Your task to perform on an android device: stop showing notifications on the lock screen Image 0: 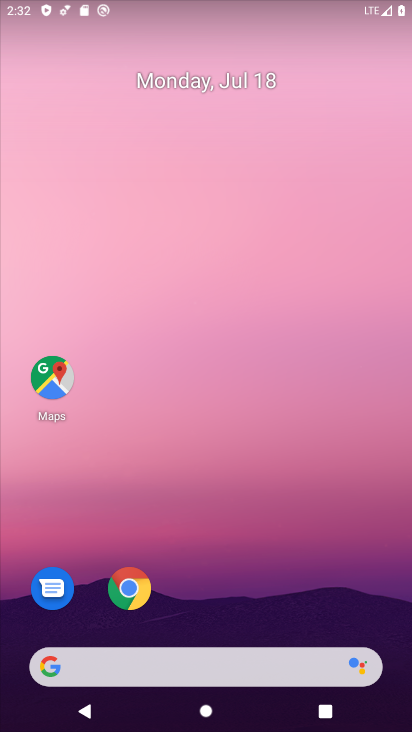
Step 0: drag from (220, 544) to (257, 23)
Your task to perform on an android device: stop showing notifications on the lock screen Image 1: 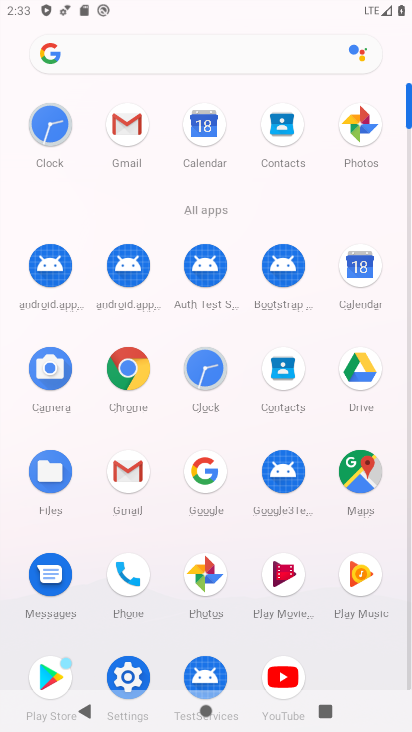
Step 1: click (130, 665)
Your task to perform on an android device: stop showing notifications on the lock screen Image 2: 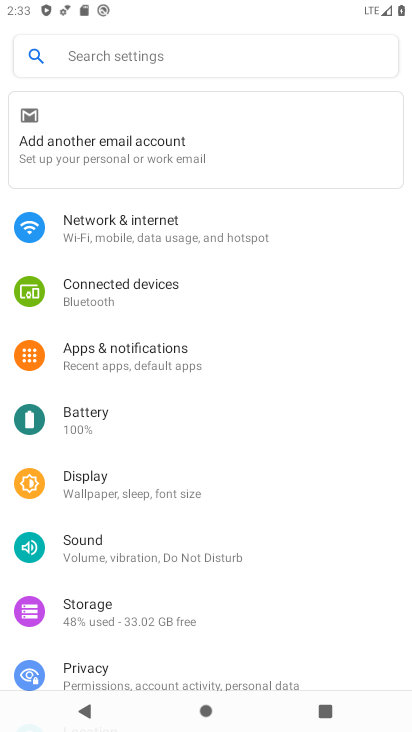
Step 2: click (140, 349)
Your task to perform on an android device: stop showing notifications on the lock screen Image 3: 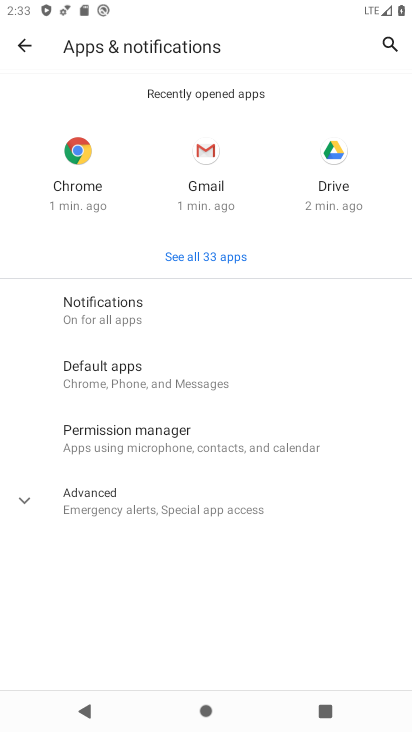
Step 3: click (119, 302)
Your task to perform on an android device: stop showing notifications on the lock screen Image 4: 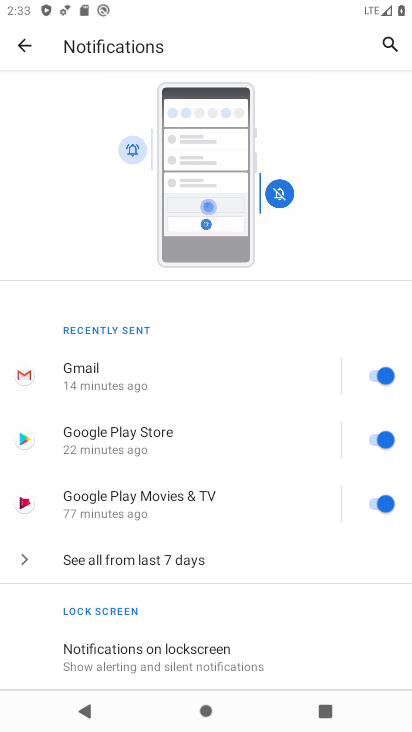
Step 4: click (150, 655)
Your task to perform on an android device: stop showing notifications on the lock screen Image 5: 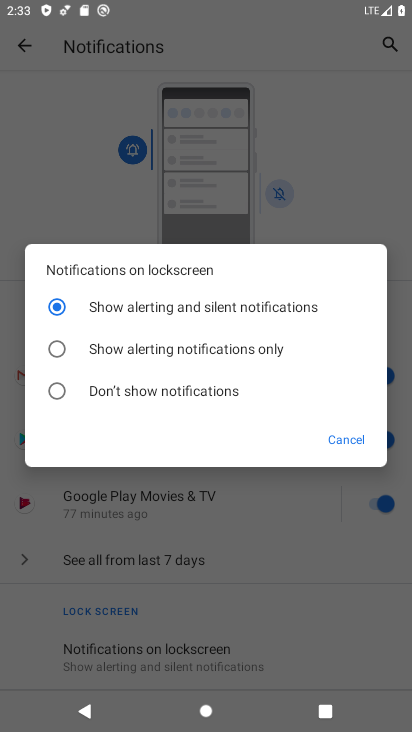
Step 5: click (118, 391)
Your task to perform on an android device: stop showing notifications on the lock screen Image 6: 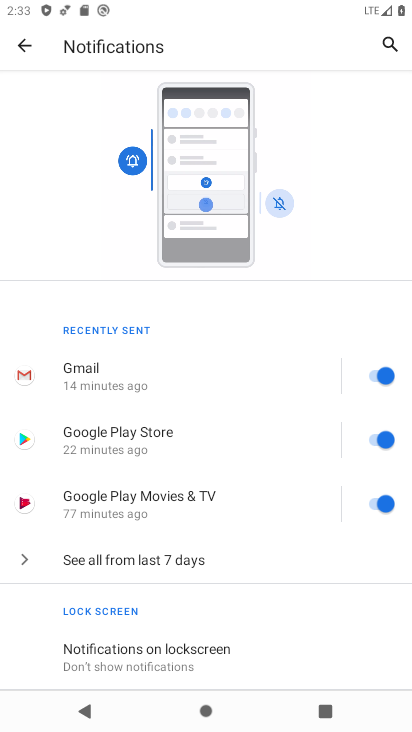
Step 6: task complete